Your task to perform on an android device: change alarm snooze length Image 0: 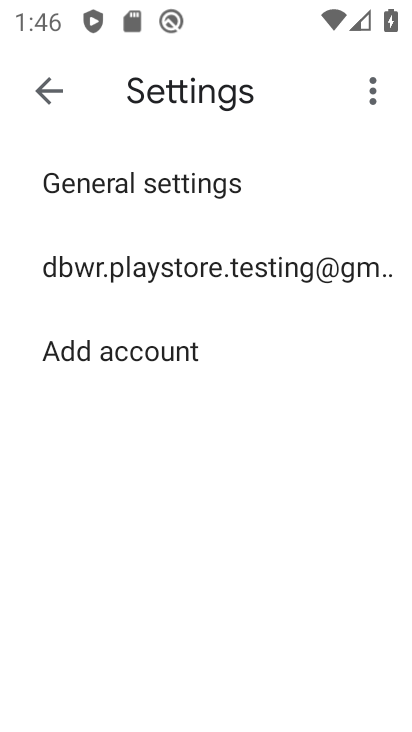
Step 0: press home button
Your task to perform on an android device: change alarm snooze length Image 1: 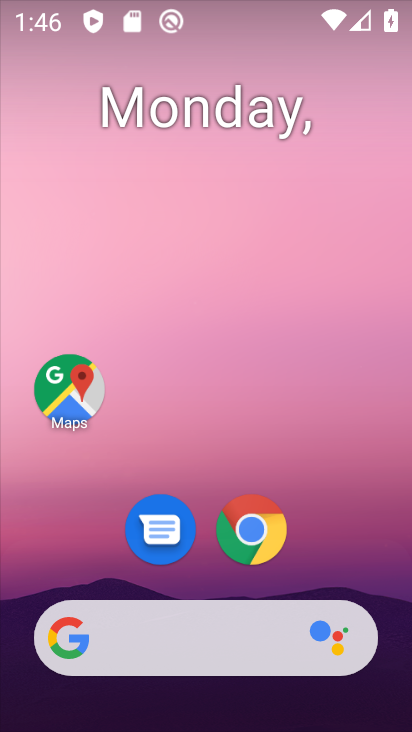
Step 1: drag from (254, 714) to (396, 1)
Your task to perform on an android device: change alarm snooze length Image 2: 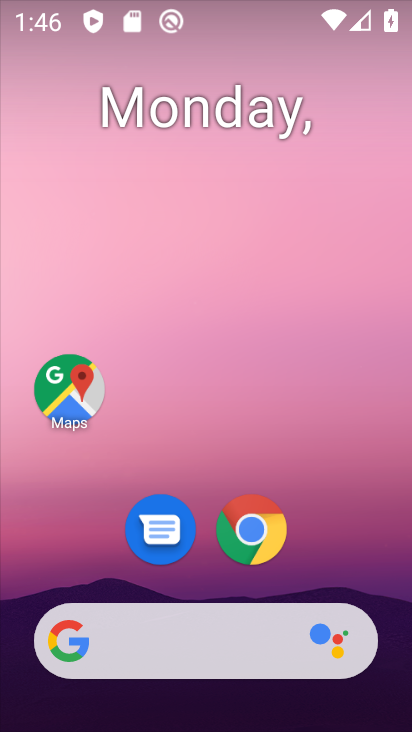
Step 2: drag from (248, 701) to (242, 7)
Your task to perform on an android device: change alarm snooze length Image 3: 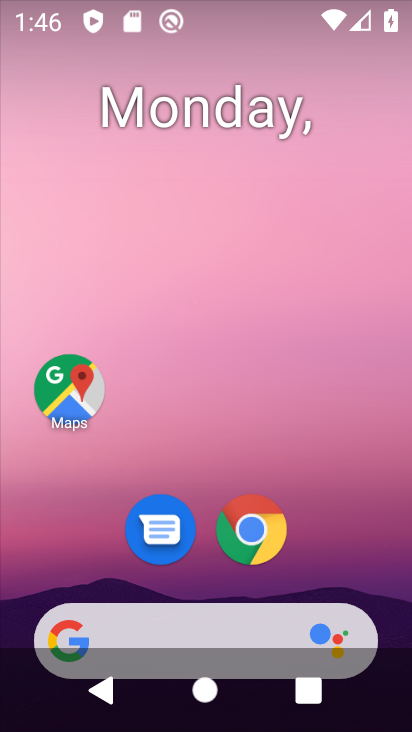
Step 3: drag from (256, 708) to (323, 84)
Your task to perform on an android device: change alarm snooze length Image 4: 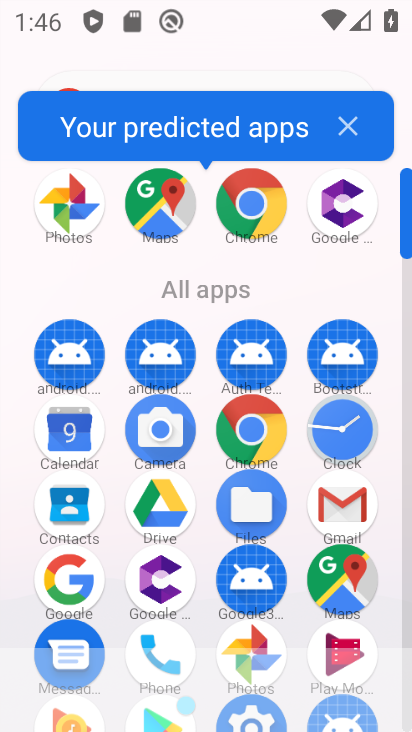
Step 4: click (335, 452)
Your task to perform on an android device: change alarm snooze length Image 5: 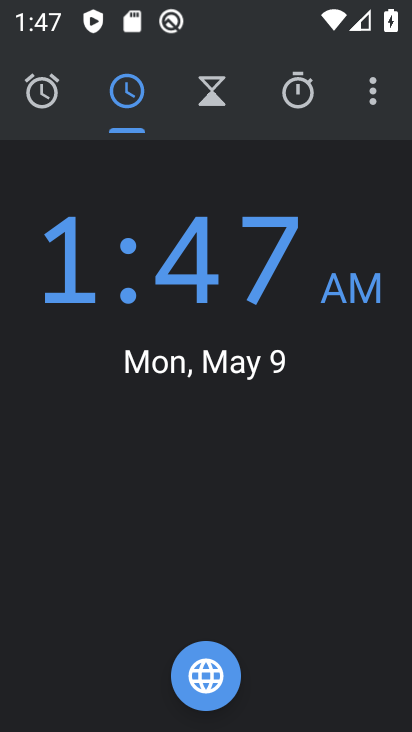
Step 5: click (370, 97)
Your task to perform on an android device: change alarm snooze length Image 6: 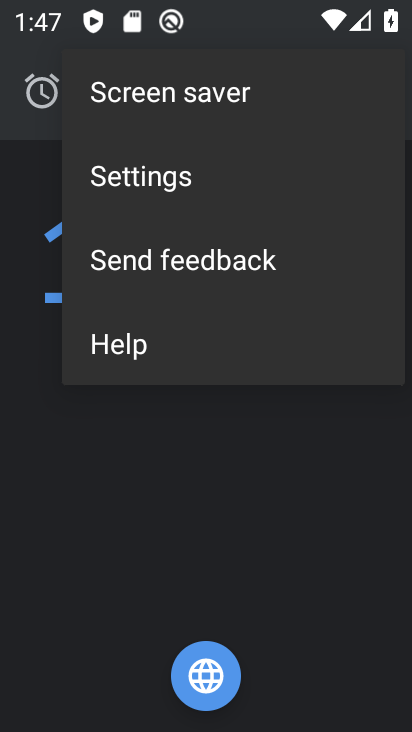
Step 6: click (193, 180)
Your task to perform on an android device: change alarm snooze length Image 7: 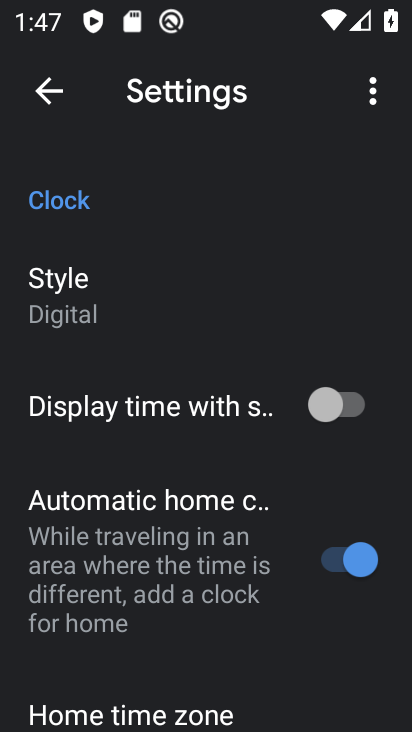
Step 7: drag from (261, 584) to (276, 0)
Your task to perform on an android device: change alarm snooze length Image 8: 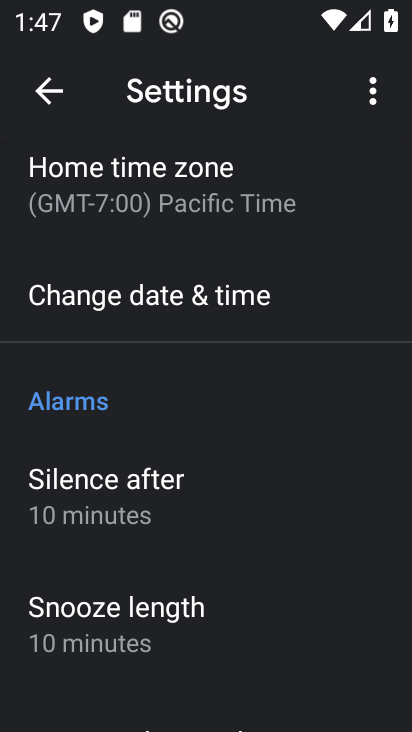
Step 8: drag from (238, 606) to (264, 59)
Your task to perform on an android device: change alarm snooze length Image 9: 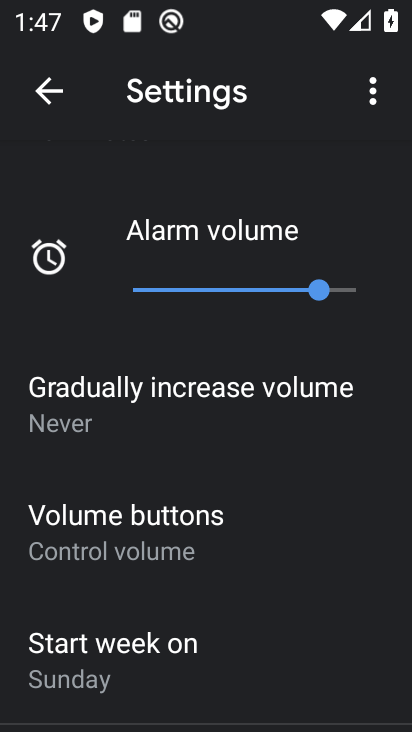
Step 9: drag from (232, 250) to (178, 568)
Your task to perform on an android device: change alarm snooze length Image 10: 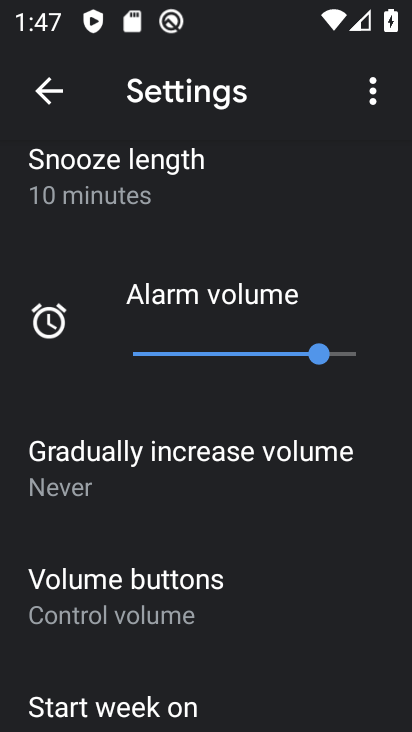
Step 10: drag from (250, 216) to (287, 408)
Your task to perform on an android device: change alarm snooze length Image 11: 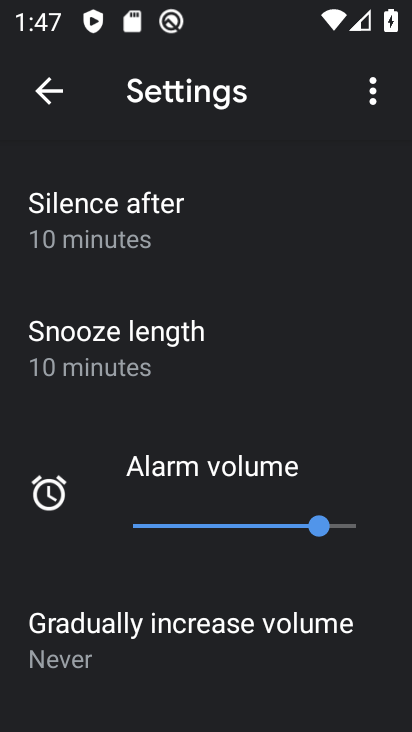
Step 11: click (185, 362)
Your task to perform on an android device: change alarm snooze length Image 12: 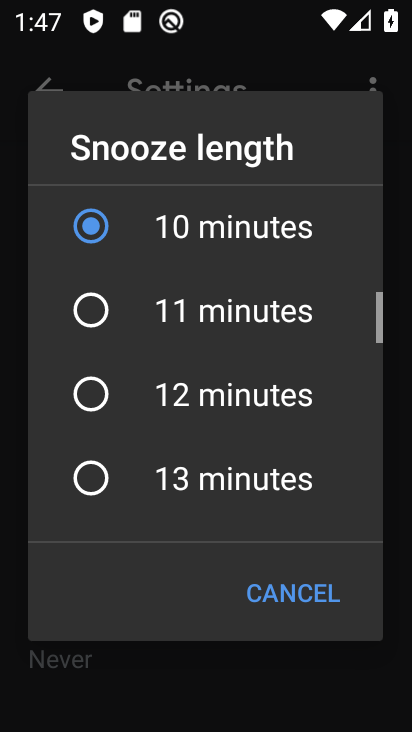
Step 12: click (257, 306)
Your task to perform on an android device: change alarm snooze length Image 13: 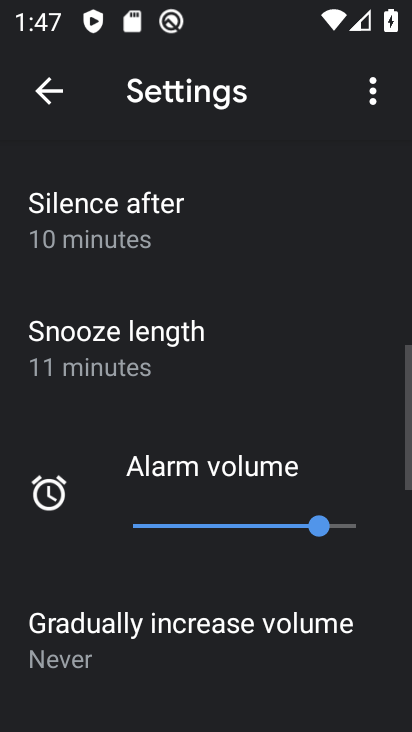
Step 13: task complete